Your task to perform on an android device: open a bookmark in the chrome app Image 0: 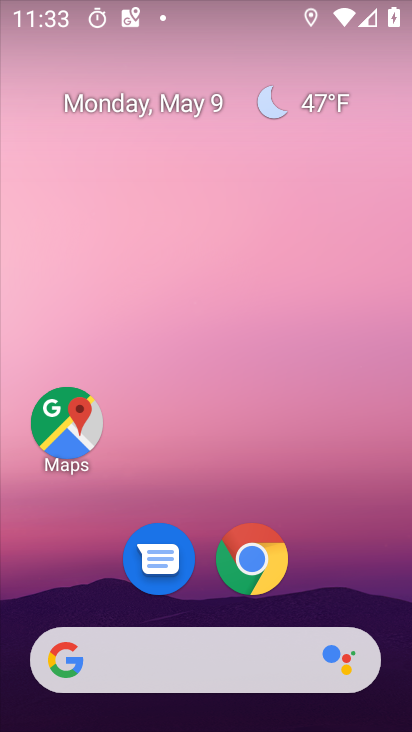
Step 0: drag from (345, 214) to (373, 11)
Your task to perform on an android device: open a bookmark in the chrome app Image 1: 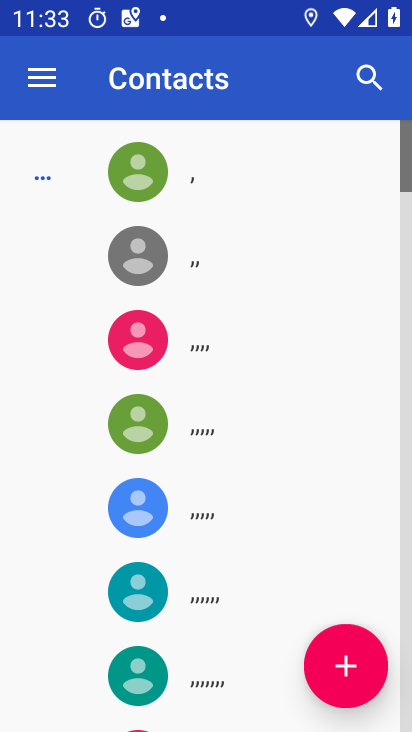
Step 1: press home button
Your task to perform on an android device: open a bookmark in the chrome app Image 2: 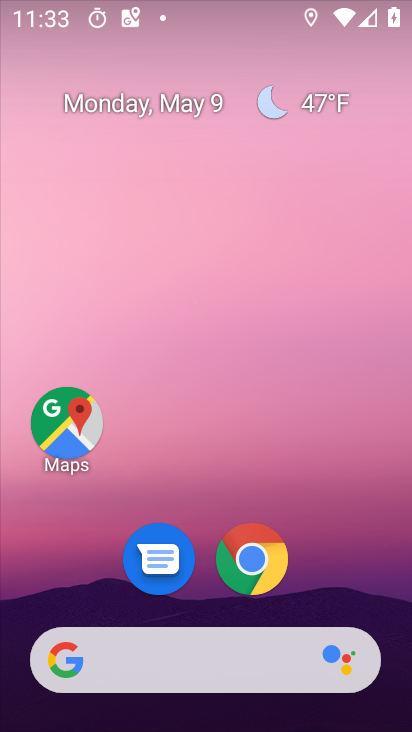
Step 2: click (245, 569)
Your task to perform on an android device: open a bookmark in the chrome app Image 3: 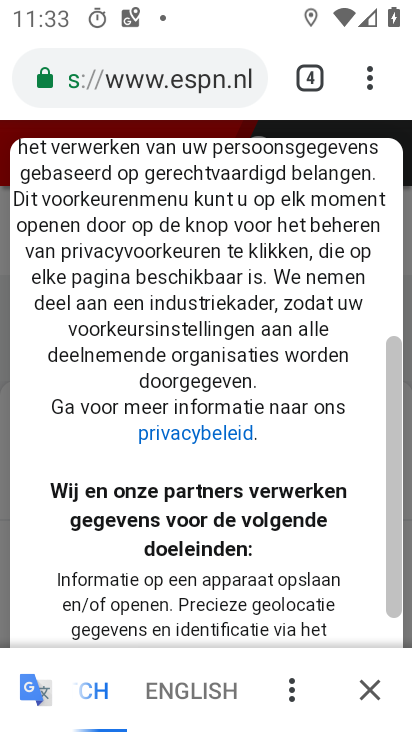
Step 3: task complete